Your task to perform on an android device: When is my next appointment? Image 0: 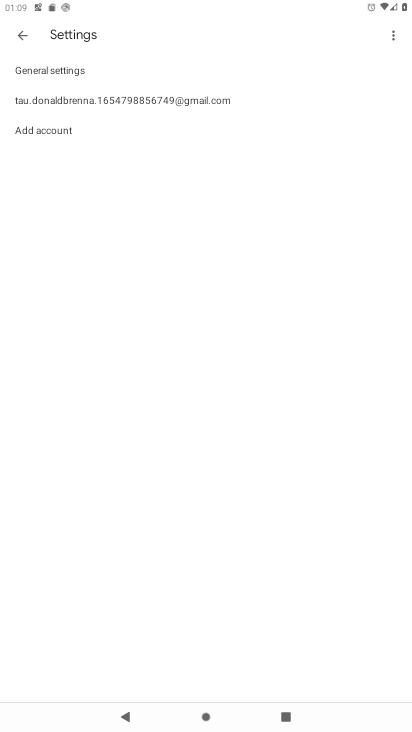
Step 0: press home button
Your task to perform on an android device: When is my next appointment? Image 1: 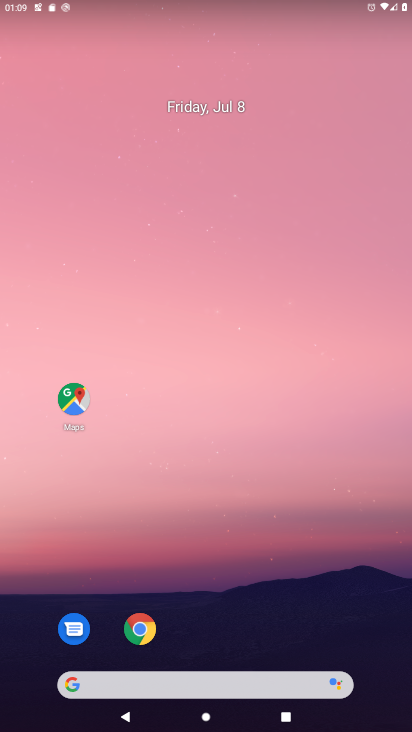
Step 1: drag from (283, 636) to (316, 33)
Your task to perform on an android device: When is my next appointment? Image 2: 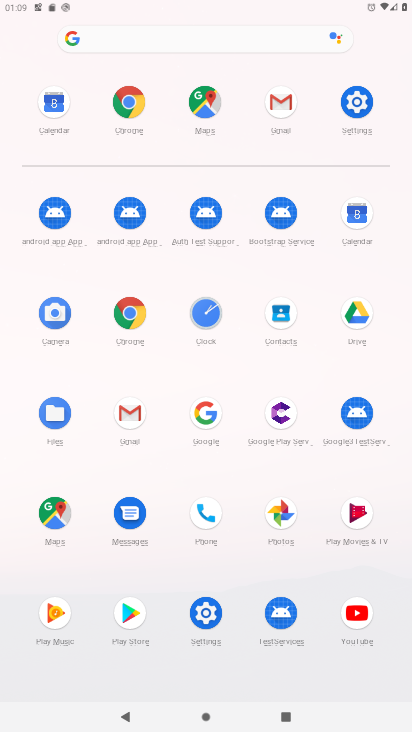
Step 2: click (357, 218)
Your task to perform on an android device: When is my next appointment? Image 3: 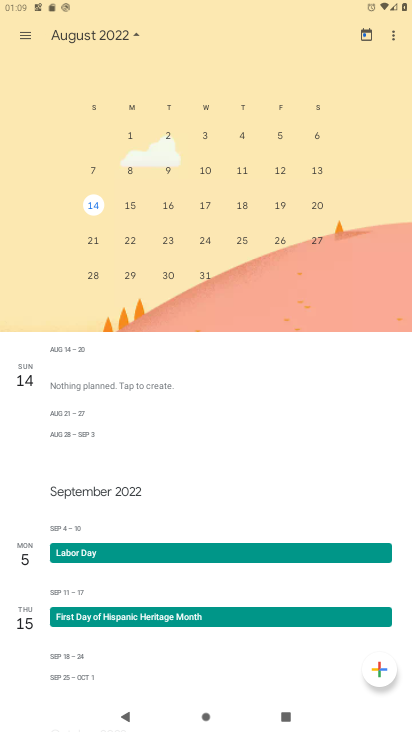
Step 3: drag from (62, 286) to (399, 301)
Your task to perform on an android device: When is my next appointment? Image 4: 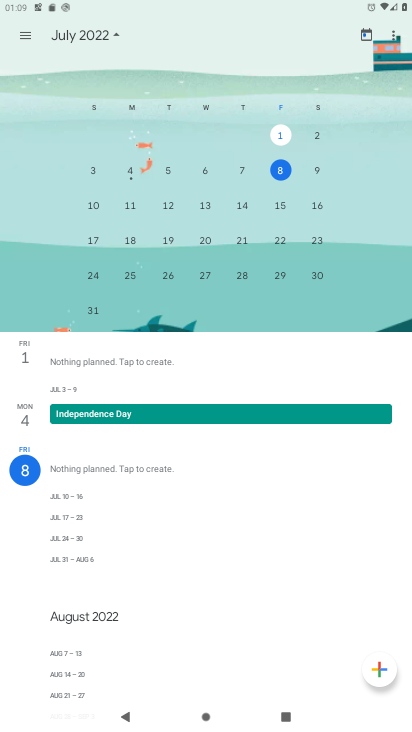
Step 4: click (279, 165)
Your task to perform on an android device: When is my next appointment? Image 5: 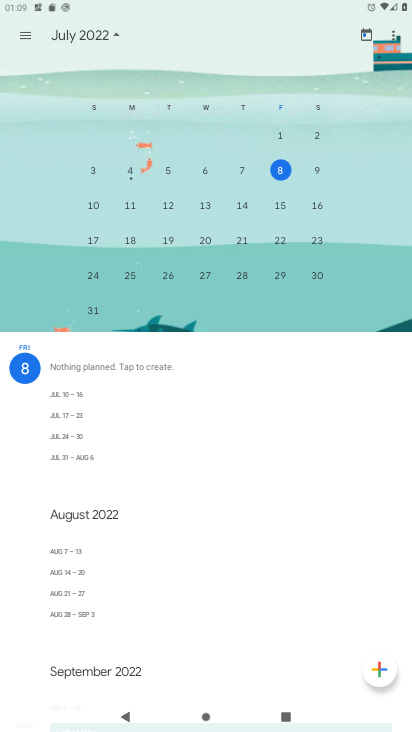
Step 5: task complete